Your task to perform on an android device: Open Google Image 0: 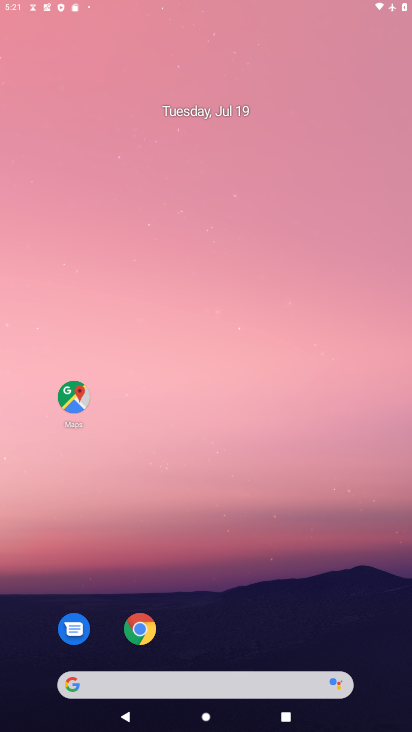
Step 0: press home button
Your task to perform on an android device: Open Google Image 1: 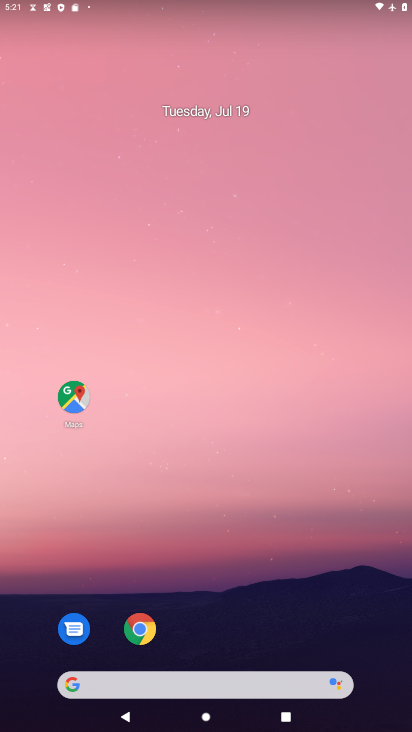
Step 1: click (78, 687)
Your task to perform on an android device: Open Google Image 2: 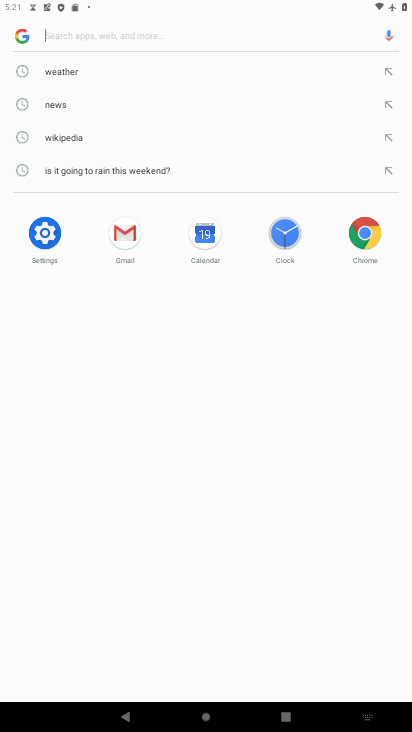
Step 2: task complete